Your task to perform on an android device: turn on javascript in the chrome app Image 0: 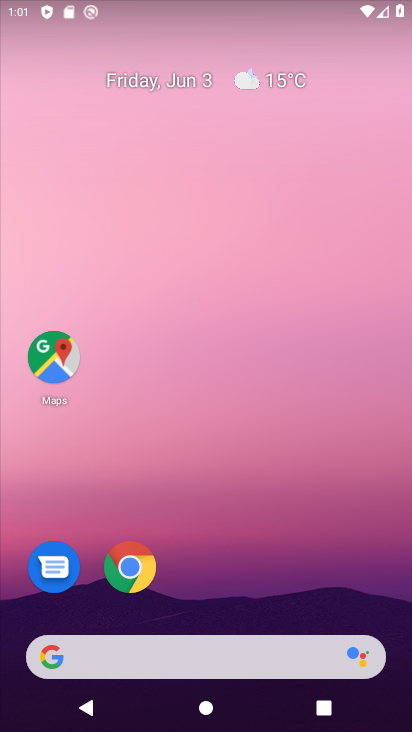
Step 0: click (132, 554)
Your task to perform on an android device: turn on javascript in the chrome app Image 1: 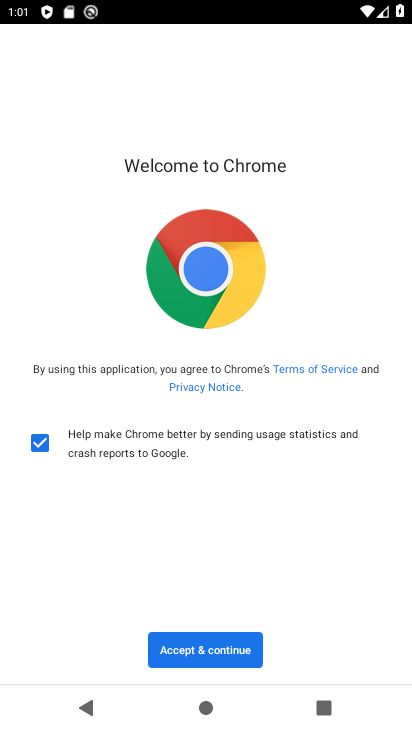
Step 1: click (226, 654)
Your task to perform on an android device: turn on javascript in the chrome app Image 2: 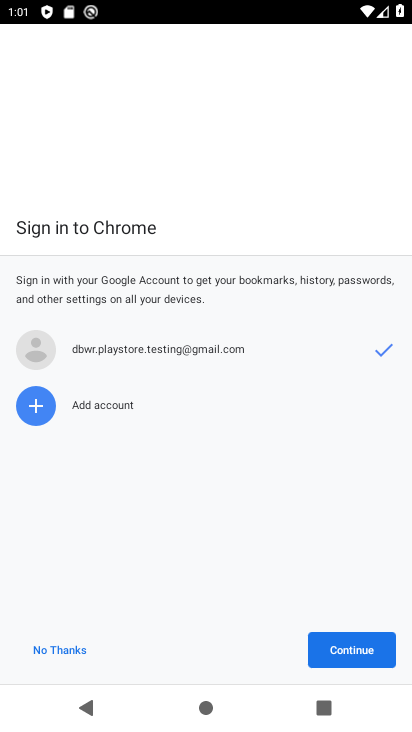
Step 2: click (355, 642)
Your task to perform on an android device: turn on javascript in the chrome app Image 3: 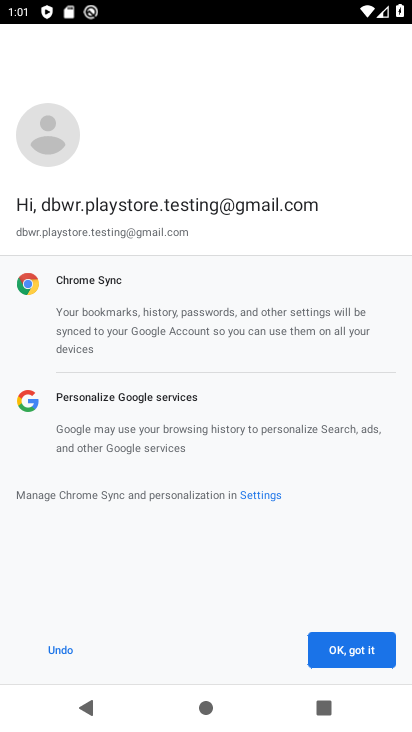
Step 3: click (355, 642)
Your task to perform on an android device: turn on javascript in the chrome app Image 4: 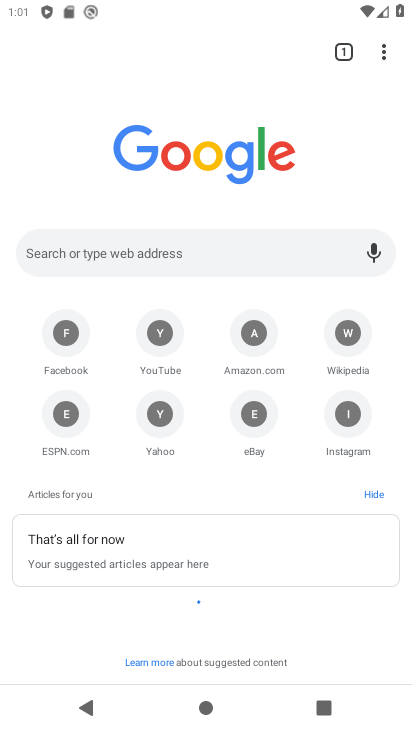
Step 4: click (381, 50)
Your task to perform on an android device: turn on javascript in the chrome app Image 5: 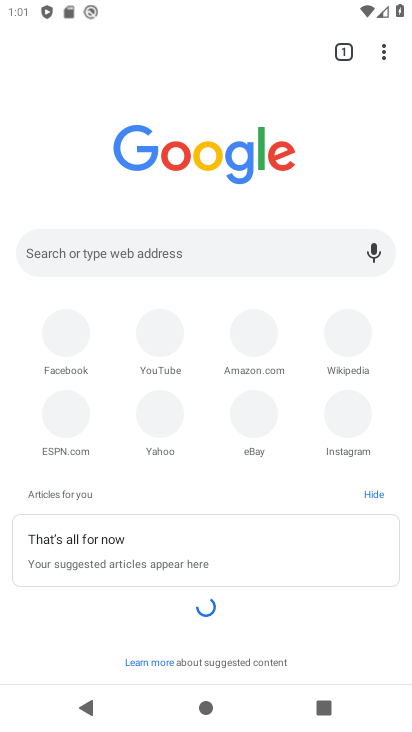
Step 5: drag from (381, 50) to (199, 427)
Your task to perform on an android device: turn on javascript in the chrome app Image 6: 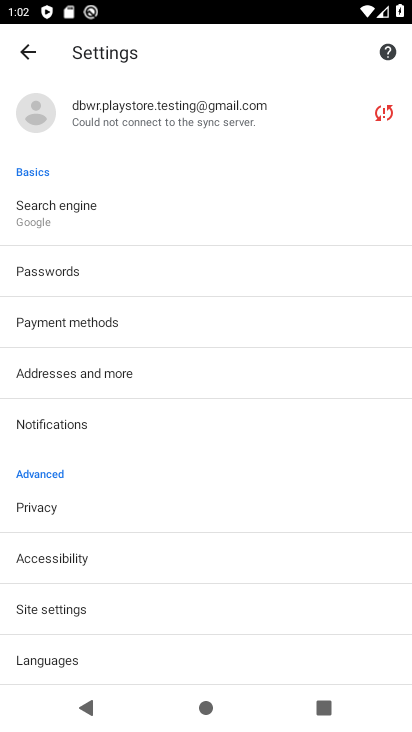
Step 6: click (96, 604)
Your task to perform on an android device: turn on javascript in the chrome app Image 7: 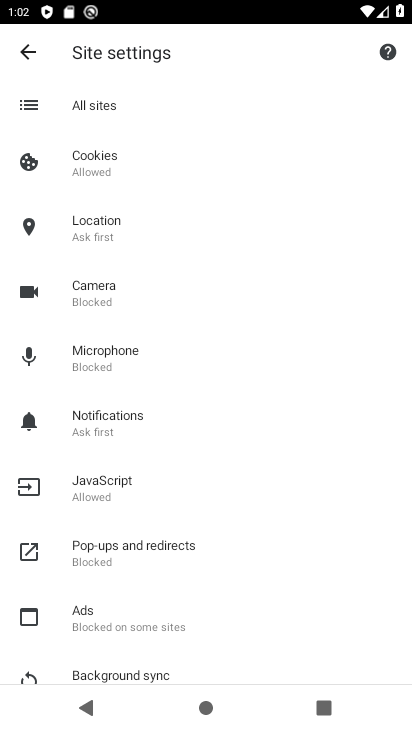
Step 7: click (114, 483)
Your task to perform on an android device: turn on javascript in the chrome app Image 8: 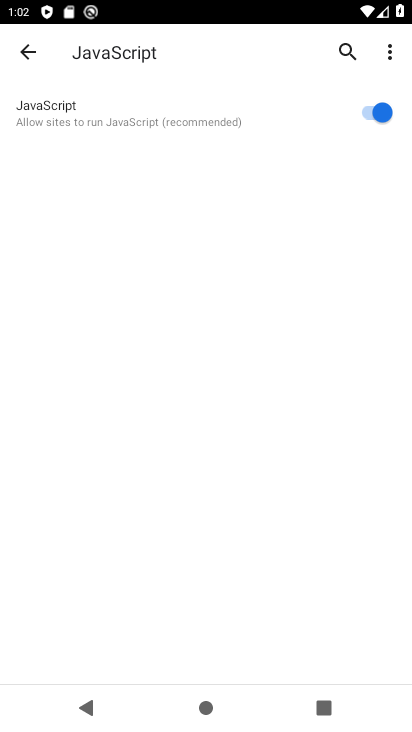
Step 8: task complete